Your task to perform on an android device: Go to internet settings Image 0: 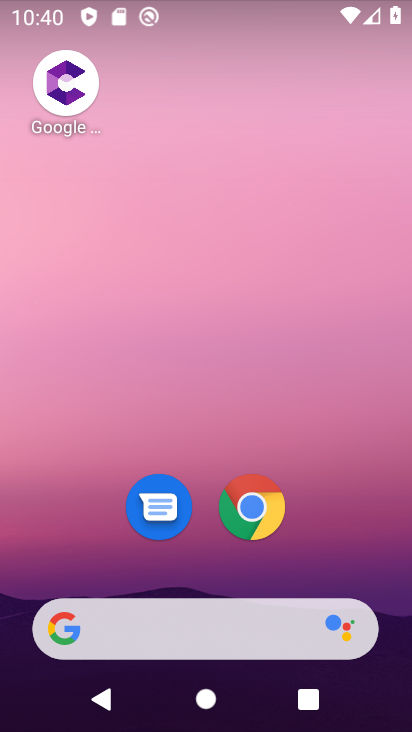
Step 0: drag from (214, 581) to (200, 5)
Your task to perform on an android device: Go to internet settings Image 1: 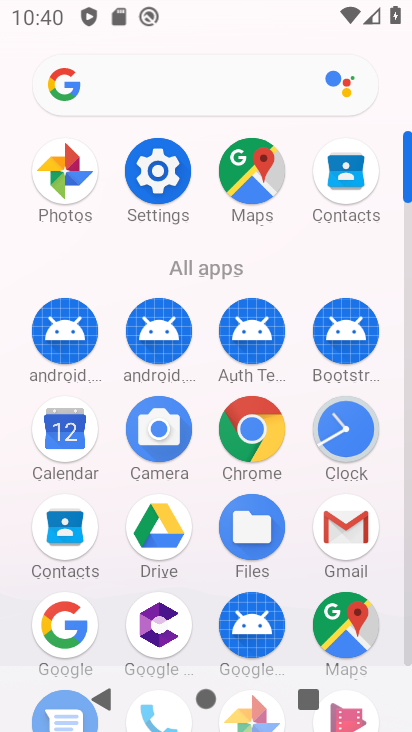
Step 1: click (145, 200)
Your task to perform on an android device: Go to internet settings Image 2: 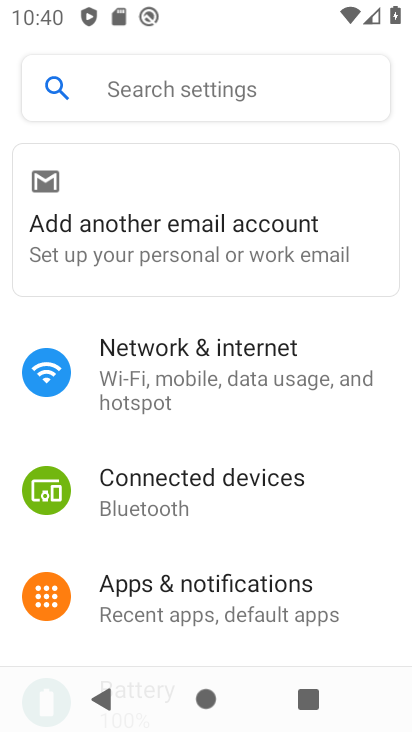
Step 2: click (224, 375)
Your task to perform on an android device: Go to internet settings Image 3: 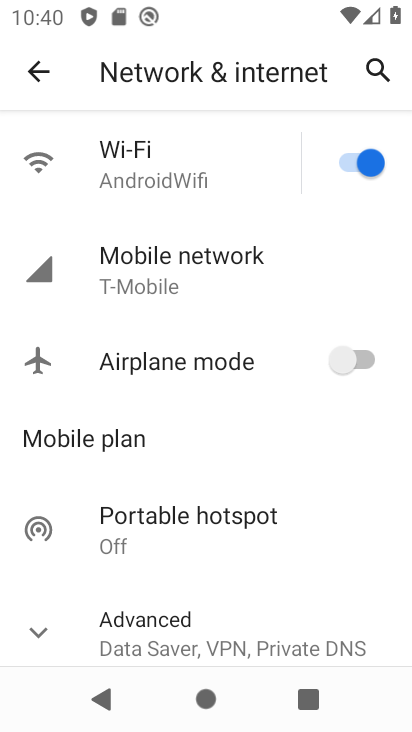
Step 3: task complete